Your task to perform on an android device: change the clock display to show seconds Image 0: 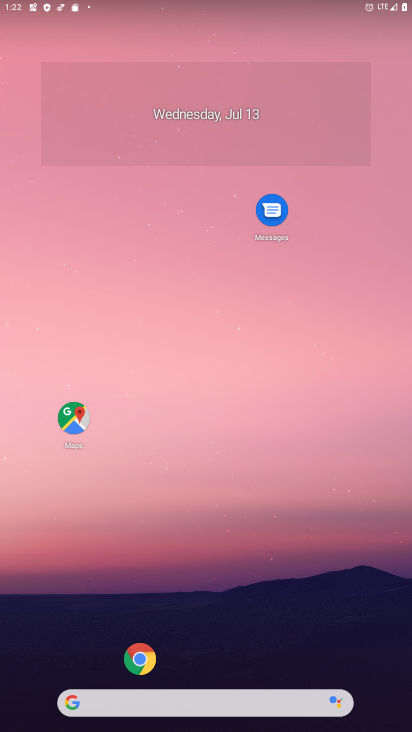
Step 0: drag from (37, 706) to (263, 198)
Your task to perform on an android device: change the clock display to show seconds Image 1: 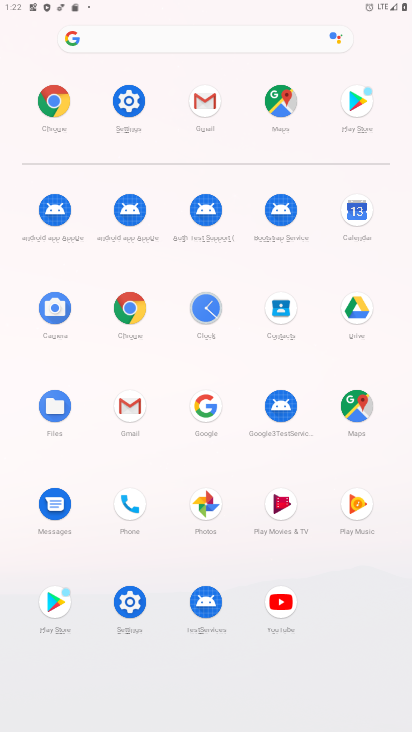
Step 1: click (197, 317)
Your task to perform on an android device: change the clock display to show seconds Image 2: 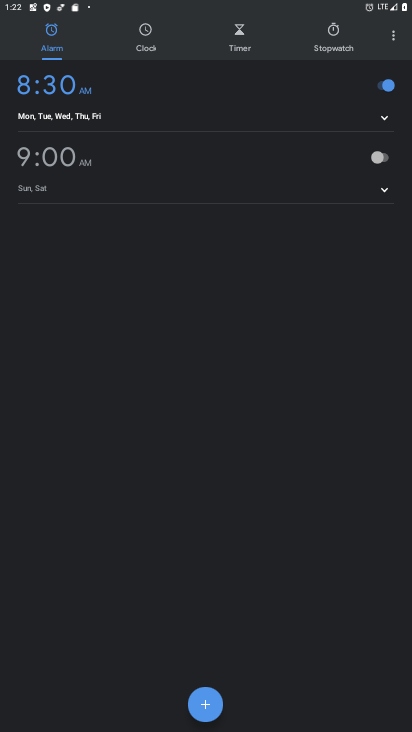
Step 2: click (132, 36)
Your task to perform on an android device: change the clock display to show seconds Image 3: 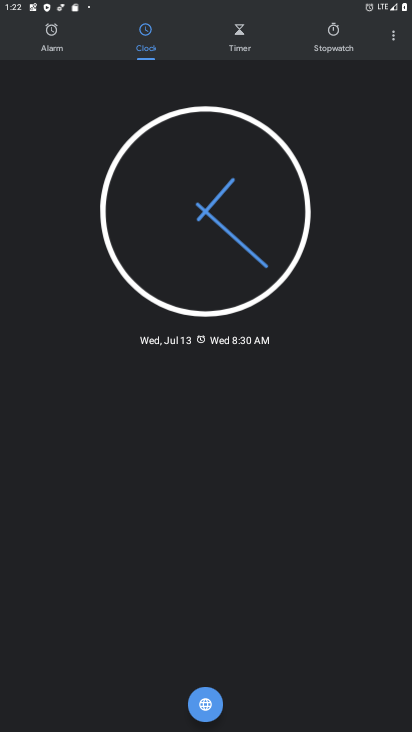
Step 3: click (395, 36)
Your task to perform on an android device: change the clock display to show seconds Image 4: 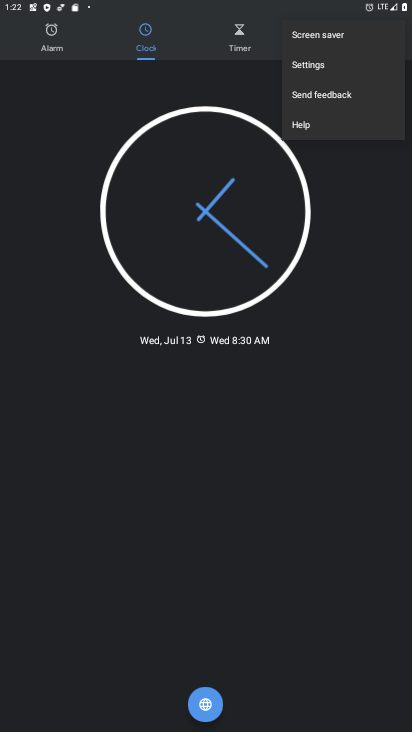
Step 4: click (332, 62)
Your task to perform on an android device: change the clock display to show seconds Image 5: 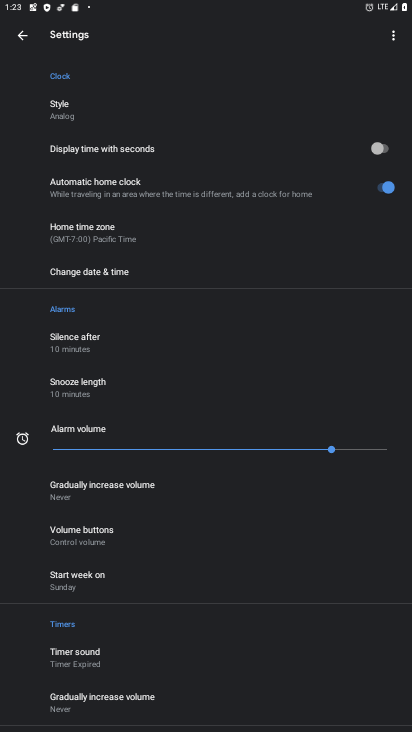
Step 5: click (144, 271)
Your task to perform on an android device: change the clock display to show seconds Image 6: 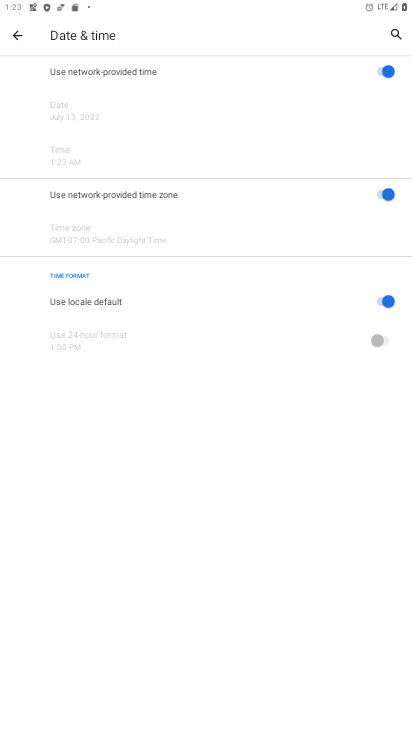
Step 6: click (393, 292)
Your task to perform on an android device: change the clock display to show seconds Image 7: 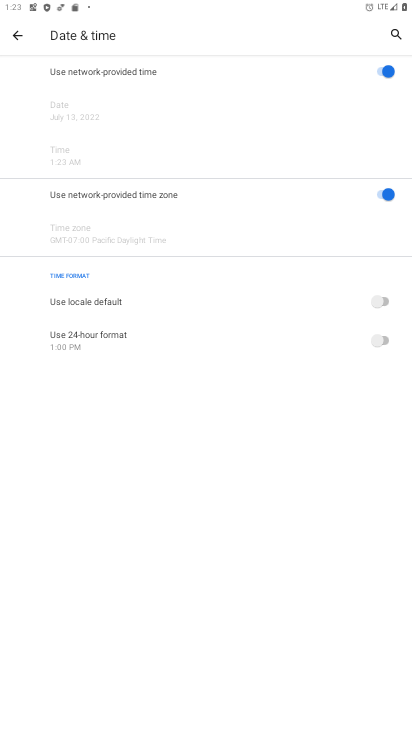
Step 7: task complete